Your task to perform on an android device: empty trash in the gmail app Image 0: 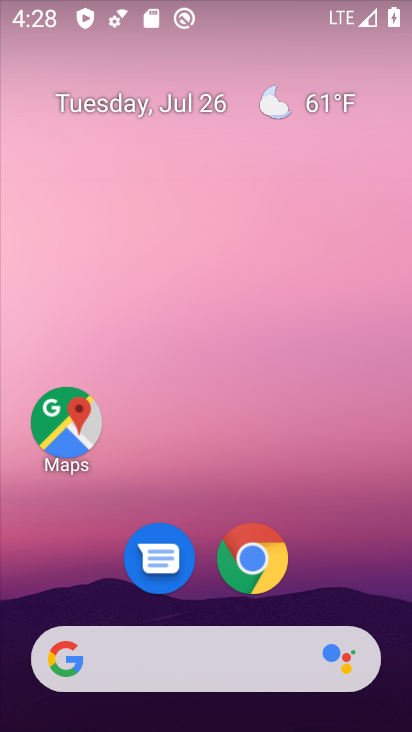
Step 0: drag from (80, 575) to (208, 18)
Your task to perform on an android device: empty trash in the gmail app Image 1: 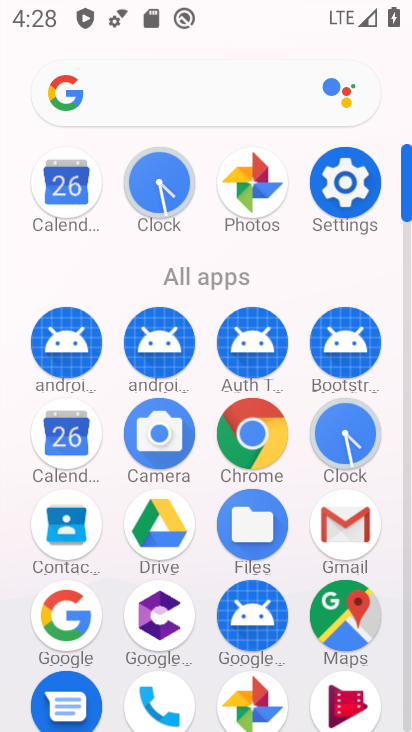
Step 1: click (341, 519)
Your task to perform on an android device: empty trash in the gmail app Image 2: 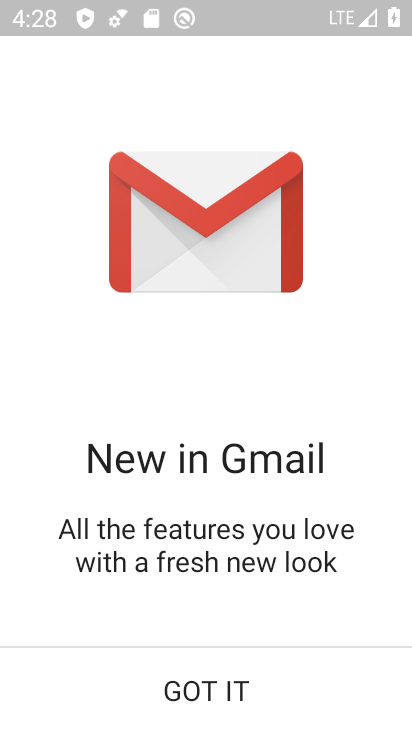
Step 2: click (225, 682)
Your task to perform on an android device: empty trash in the gmail app Image 3: 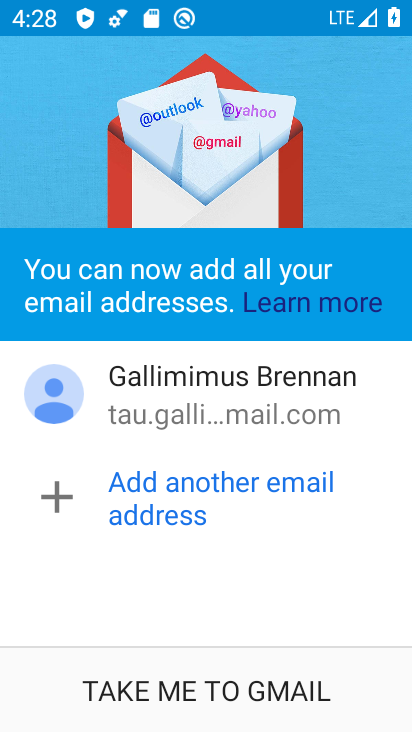
Step 3: click (189, 674)
Your task to perform on an android device: empty trash in the gmail app Image 4: 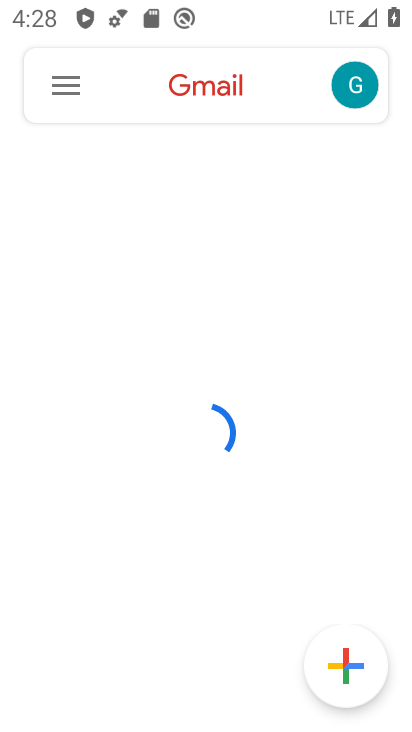
Step 4: click (54, 83)
Your task to perform on an android device: empty trash in the gmail app Image 5: 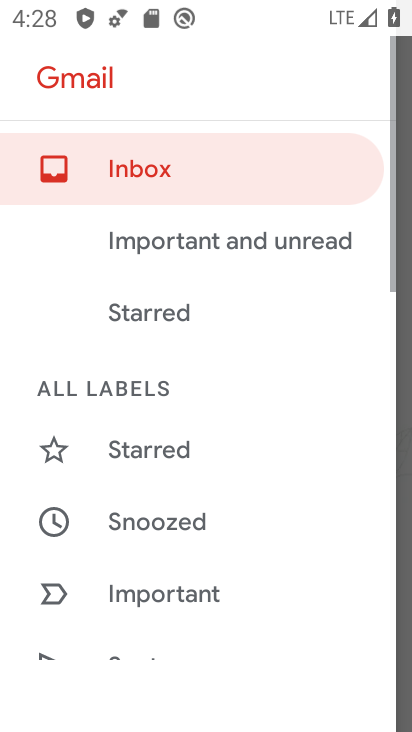
Step 5: drag from (177, 540) to (248, 58)
Your task to perform on an android device: empty trash in the gmail app Image 6: 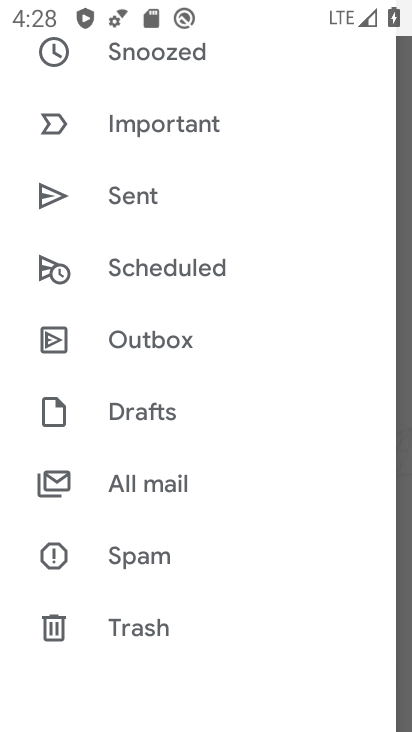
Step 6: click (151, 628)
Your task to perform on an android device: empty trash in the gmail app Image 7: 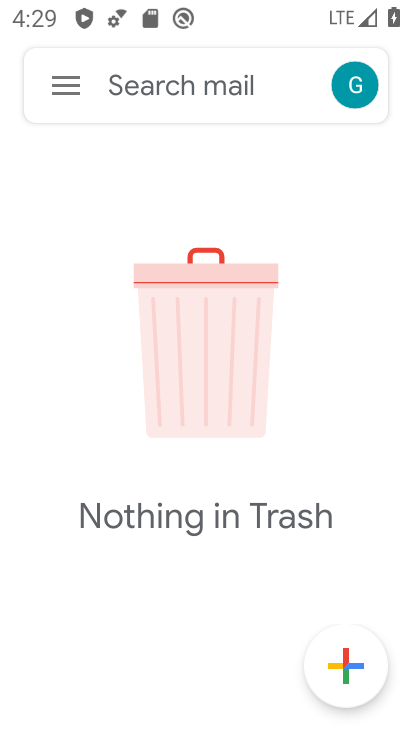
Step 7: task complete